Your task to perform on an android device: delete a single message in the gmail app Image 0: 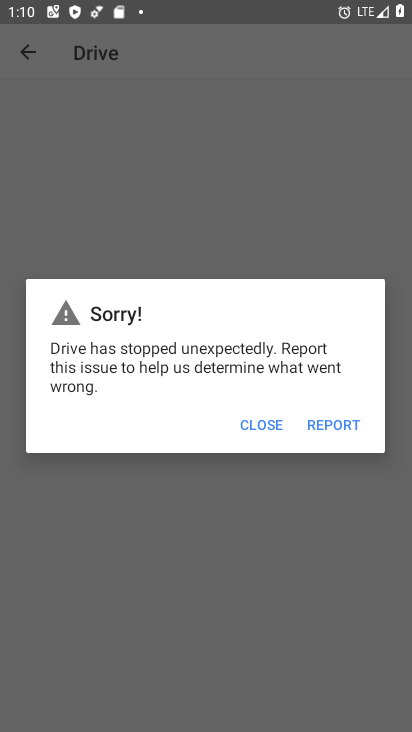
Step 0: press back button
Your task to perform on an android device: delete a single message in the gmail app Image 1: 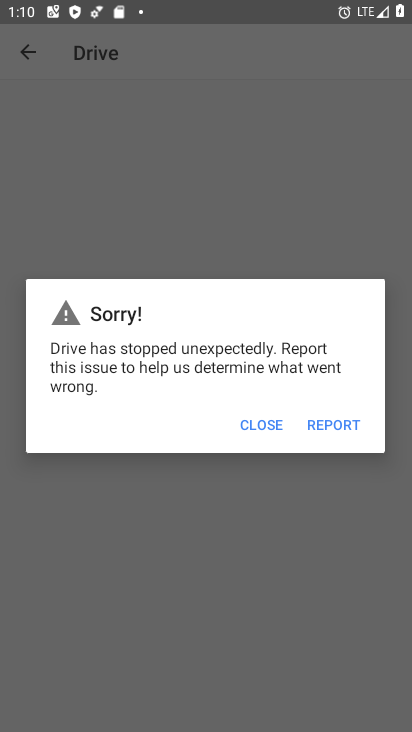
Step 1: press home button
Your task to perform on an android device: delete a single message in the gmail app Image 2: 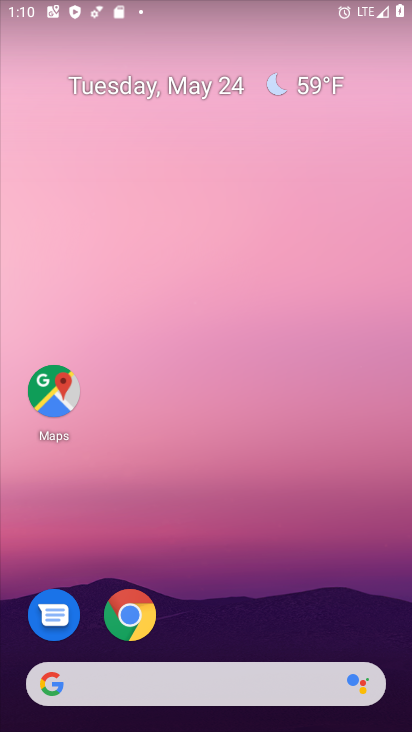
Step 2: drag from (304, 598) to (285, 29)
Your task to perform on an android device: delete a single message in the gmail app Image 3: 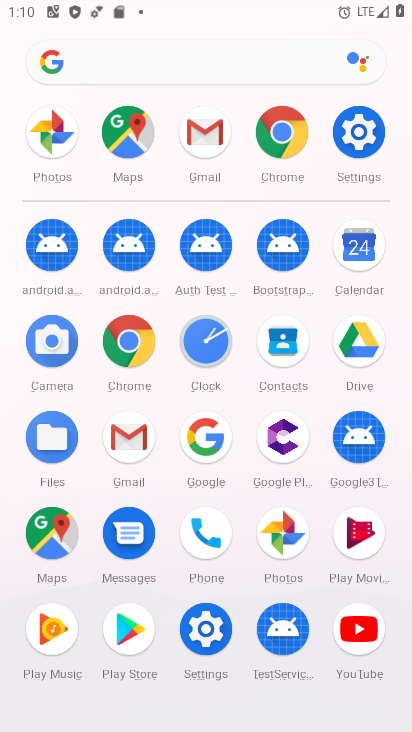
Step 3: drag from (0, 635) to (13, 227)
Your task to perform on an android device: delete a single message in the gmail app Image 4: 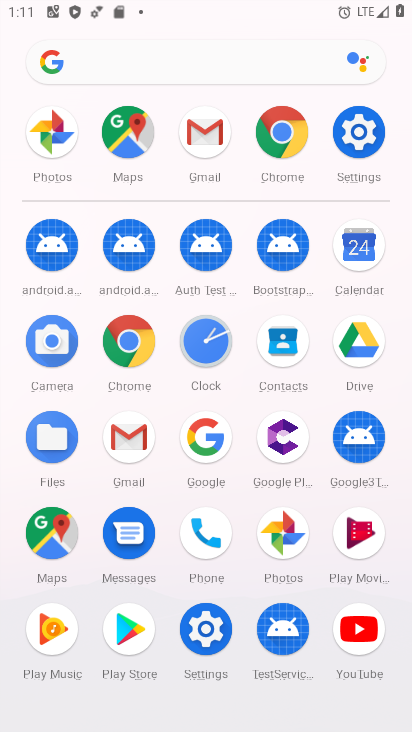
Step 4: click (127, 430)
Your task to perform on an android device: delete a single message in the gmail app Image 5: 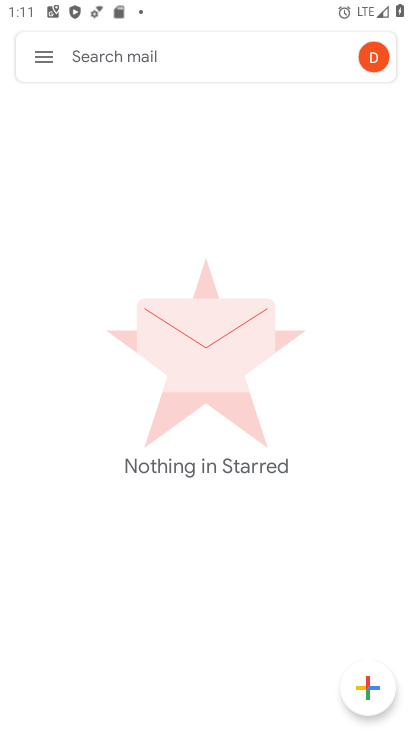
Step 5: click (42, 52)
Your task to perform on an android device: delete a single message in the gmail app Image 6: 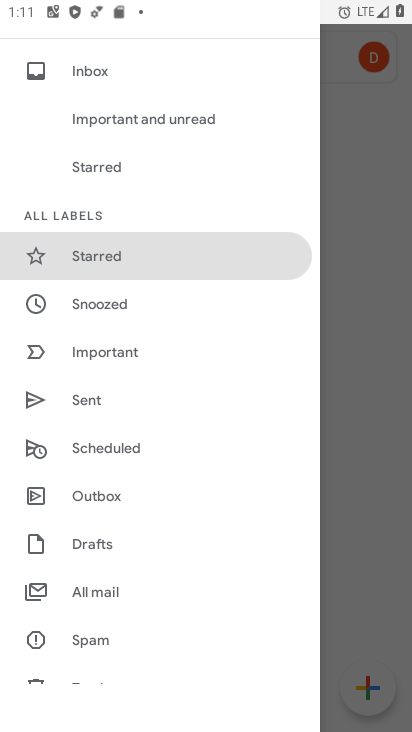
Step 6: drag from (191, 162) to (235, 608)
Your task to perform on an android device: delete a single message in the gmail app Image 7: 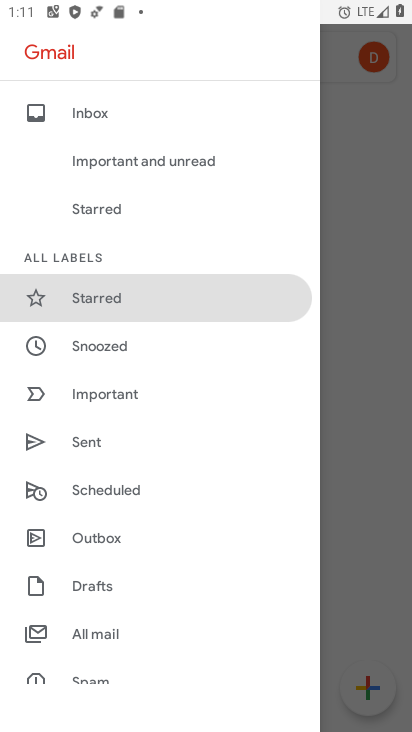
Step 7: click (108, 626)
Your task to perform on an android device: delete a single message in the gmail app Image 8: 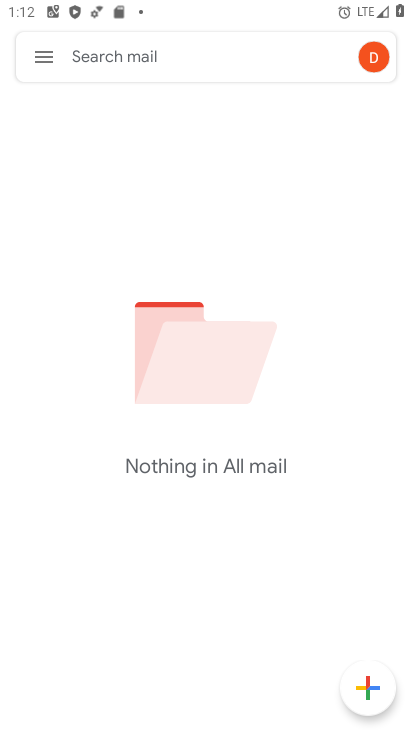
Step 8: task complete